Your task to perform on an android device: Toggle the flashlight Image 0: 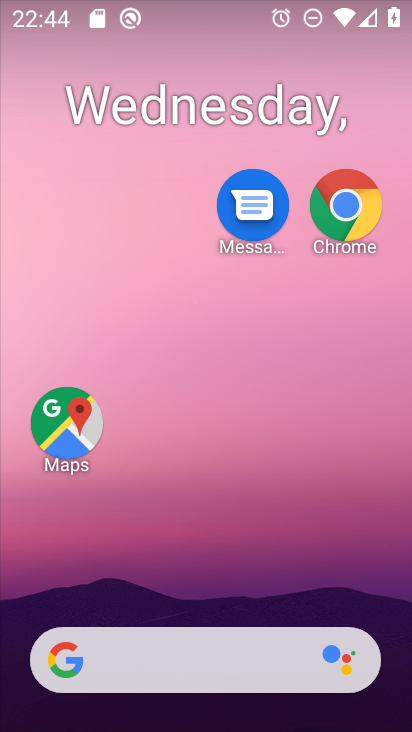
Step 0: drag from (271, 514) to (296, 85)
Your task to perform on an android device: Toggle the flashlight Image 1: 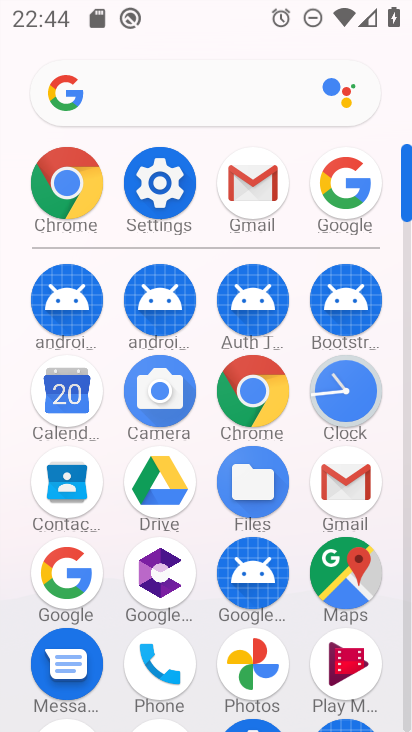
Step 1: click (163, 187)
Your task to perform on an android device: Toggle the flashlight Image 2: 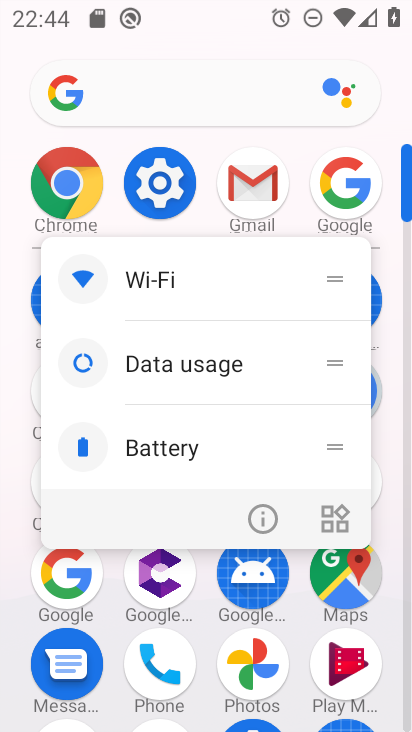
Step 2: click (270, 516)
Your task to perform on an android device: Toggle the flashlight Image 3: 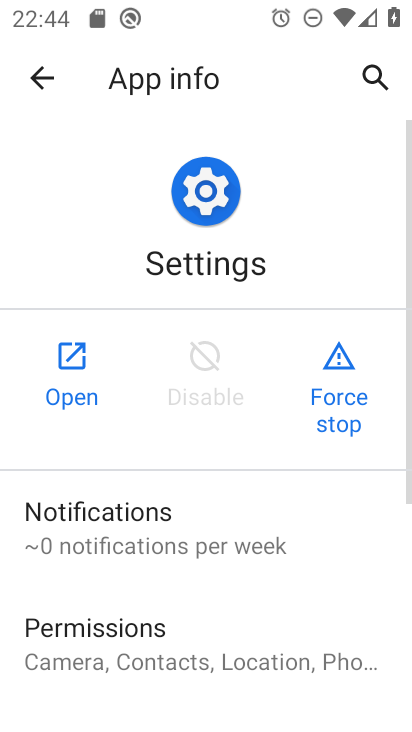
Step 3: click (72, 377)
Your task to perform on an android device: Toggle the flashlight Image 4: 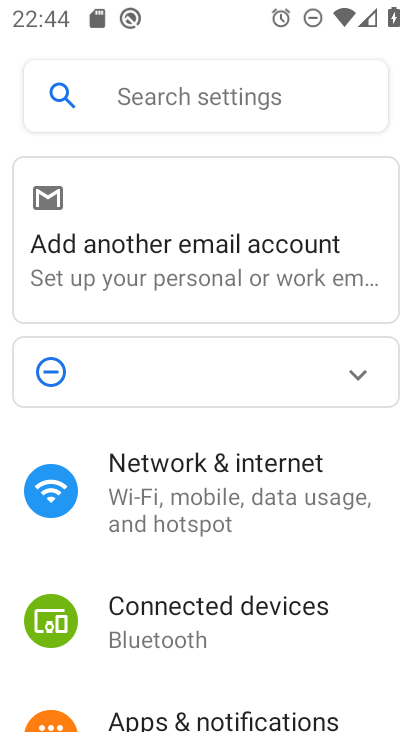
Step 4: click (200, 94)
Your task to perform on an android device: Toggle the flashlight Image 5: 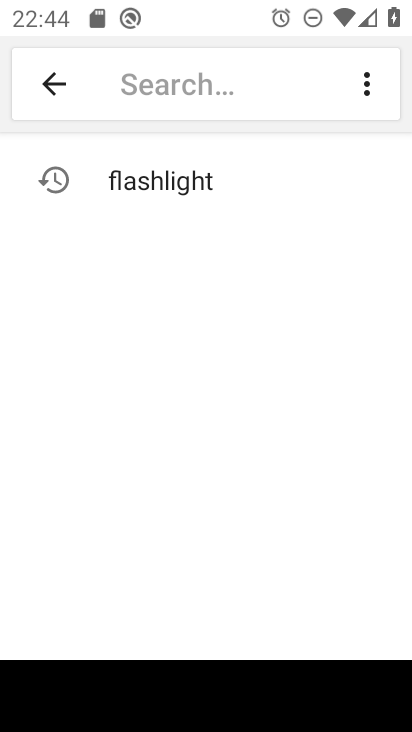
Step 5: click (121, 136)
Your task to perform on an android device: Toggle the flashlight Image 6: 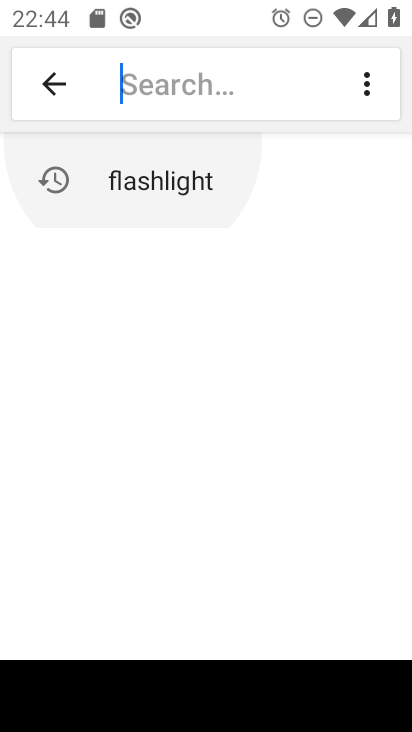
Step 6: click (147, 159)
Your task to perform on an android device: Toggle the flashlight Image 7: 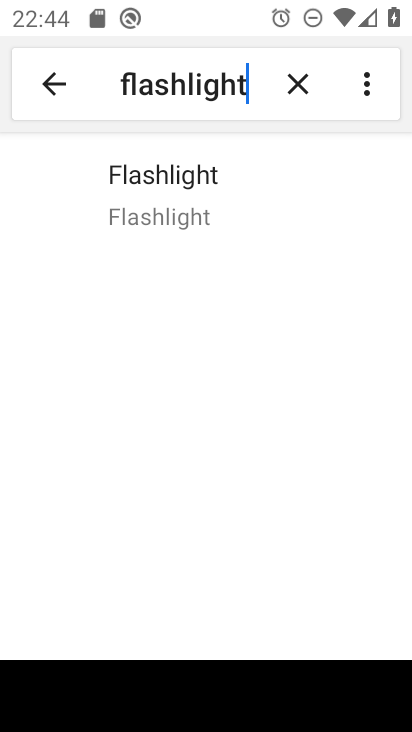
Step 7: task complete